Your task to perform on an android device: Search for pizza restaurants on Maps Image 0: 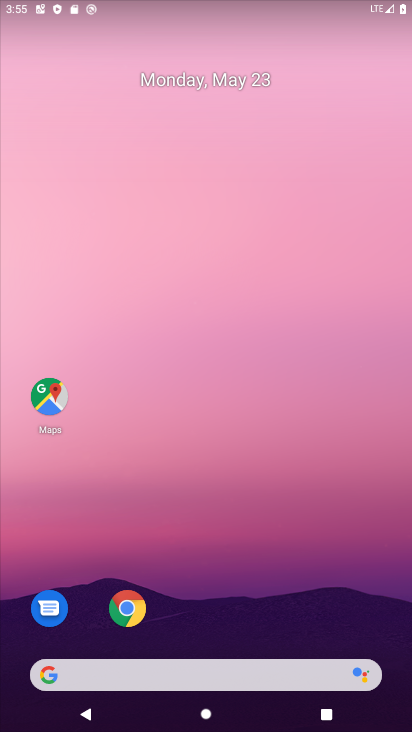
Step 0: drag from (259, 600) to (174, 61)
Your task to perform on an android device: Search for pizza restaurants on Maps Image 1: 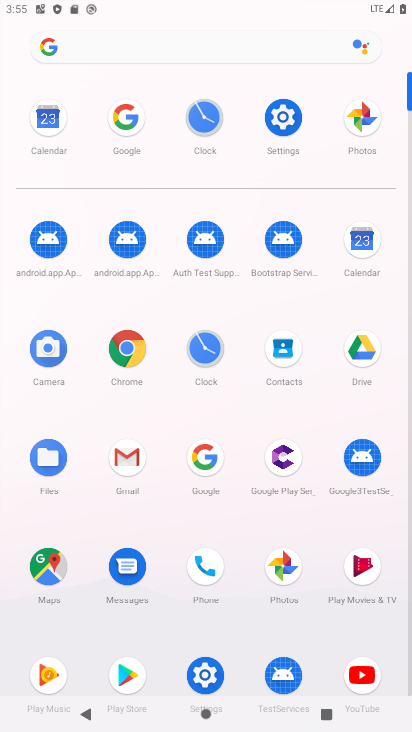
Step 1: click (50, 566)
Your task to perform on an android device: Search for pizza restaurants on Maps Image 2: 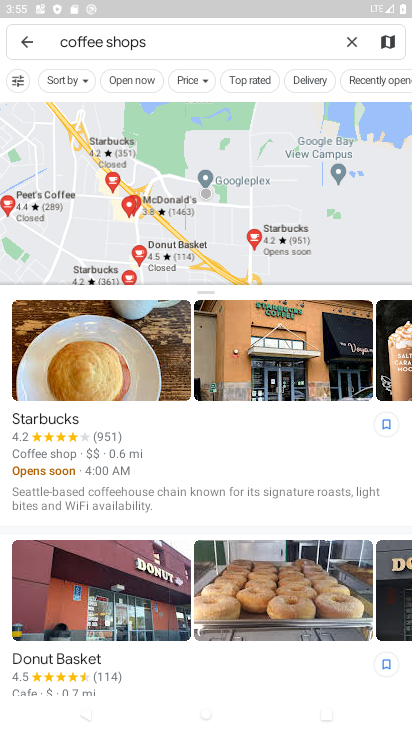
Step 2: click (350, 43)
Your task to perform on an android device: Search for pizza restaurants on Maps Image 3: 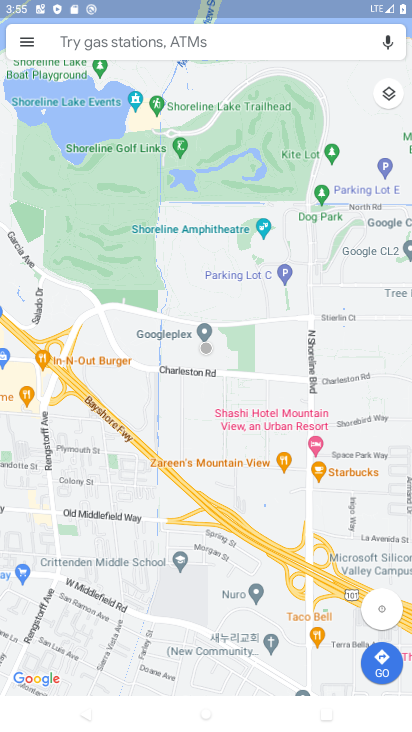
Step 3: click (241, 48)
Your task to perform on an android device: Search for pizza restaurants on Maps Image 4: 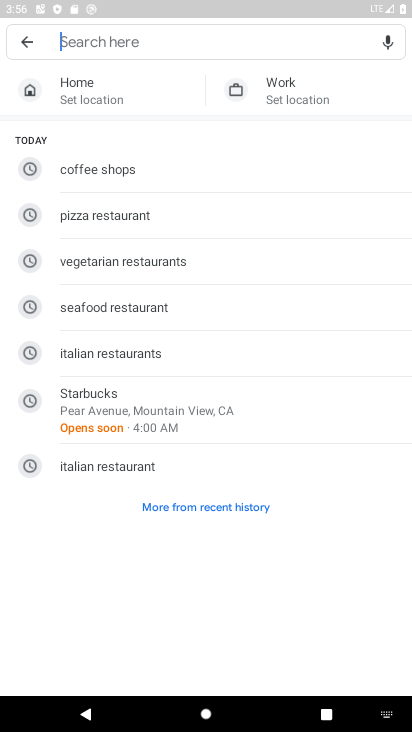
Step 4: type "pizza restaurants"
Your task to perform on an android device: Search for pizza restaurants on Maps Image 5: 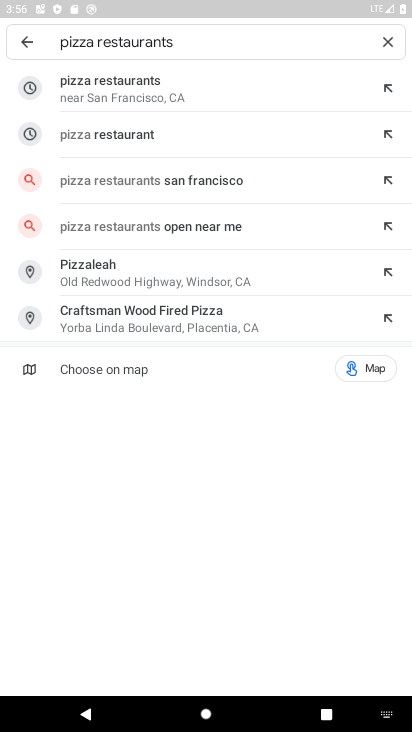
Step 5: click (132, 137)
Your task to perform on an android device: Search for pizza restaurants on Maps Image 6: 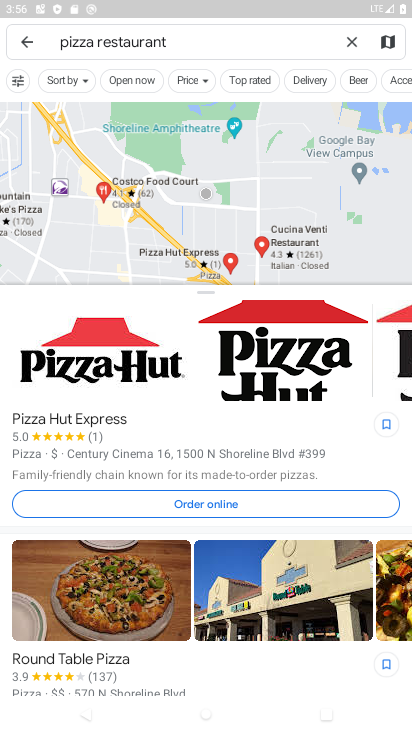
Step 6: task complete